Your task to perform on an android device: Open accessibility settings Image 0: 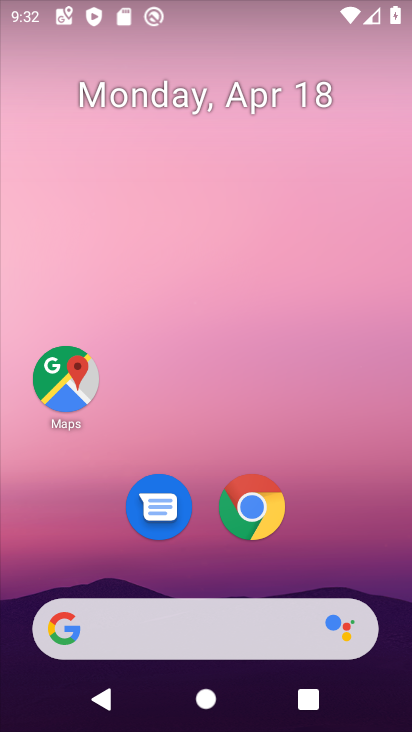
Step 0: drag from (229, 376) to (366, 347)
Your task to perform on an android device: Open accessibility settings Image 1: 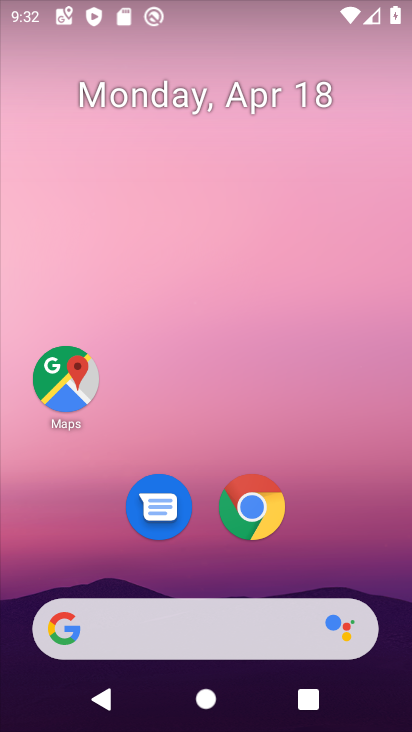
Step 1: drag from (189, 539) to (74, 28)
Your task to perform on an android device: Open accessibility settings Image 2: 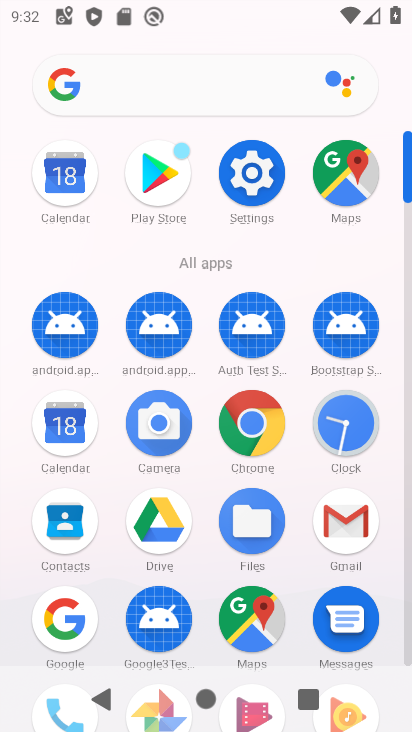
Step 2: click (242, 181)
Your task to perform on an android device: Open accessibility settings Image 3: 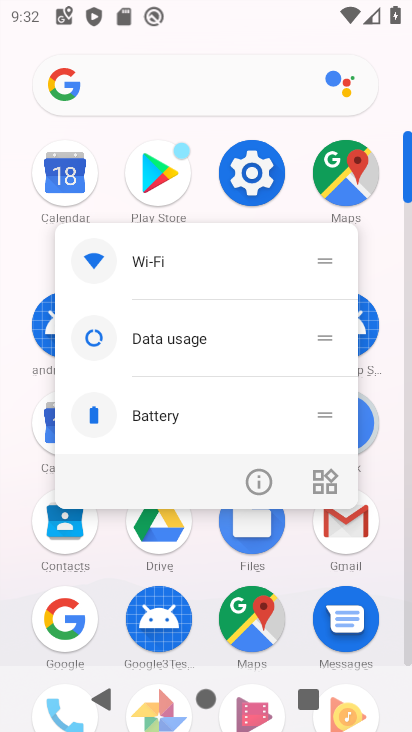
Step 3: click (245, 176)
Your task to perform on an android device: Open accessibility settings Image 4: 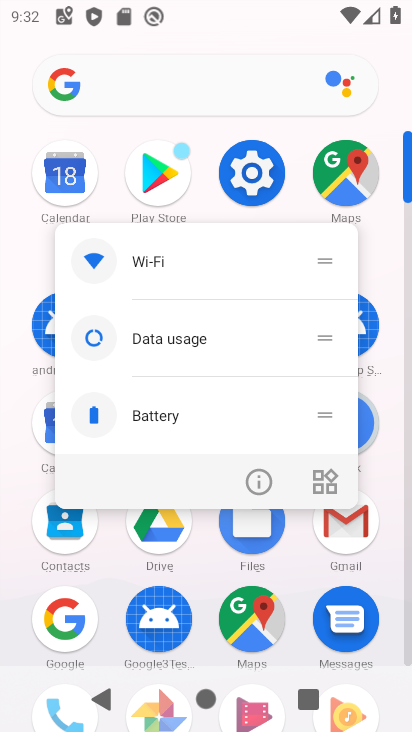
Step 4: click (245, 140)
Your task to perform on an android device: Open accessibility settings Image 5: 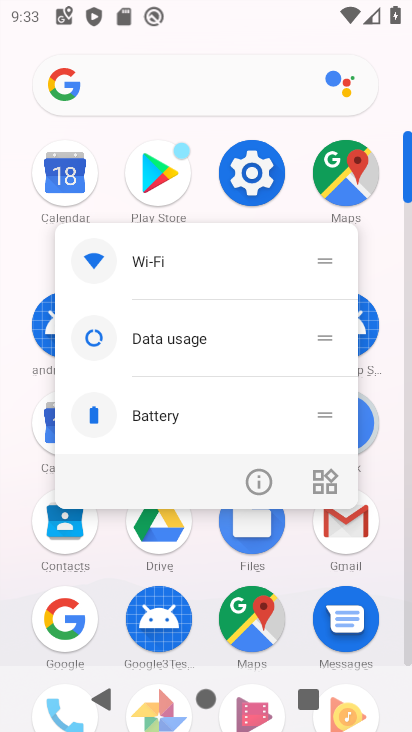
Step 5: click (250, 151)
Your task to perform on an android device: Open accessibility settings Image 6: 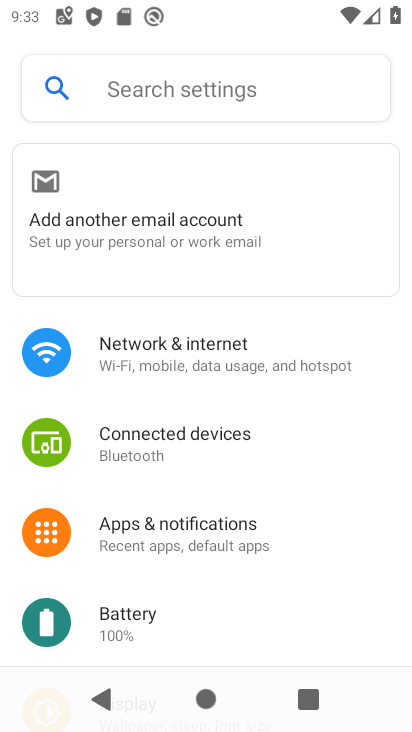
Step 6: drag from (277, 513) to (219, 73)
Your task to perform on an android device: Open accessibility settings Image 7: 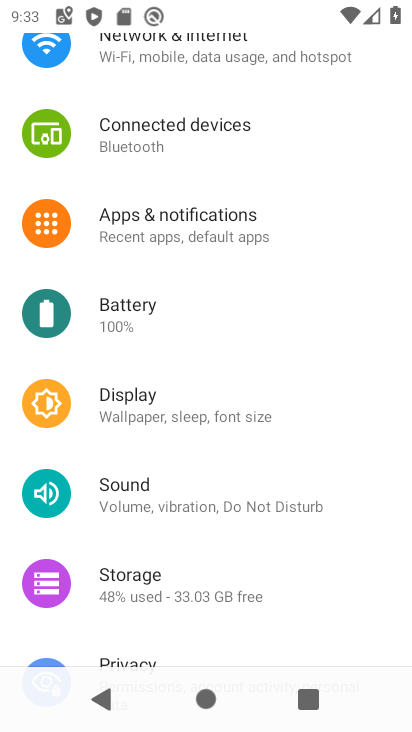
Step 7: drag from (237, 555) to (196, 194)
Your task to perform on an android device: Open accessibility settings Image 8: 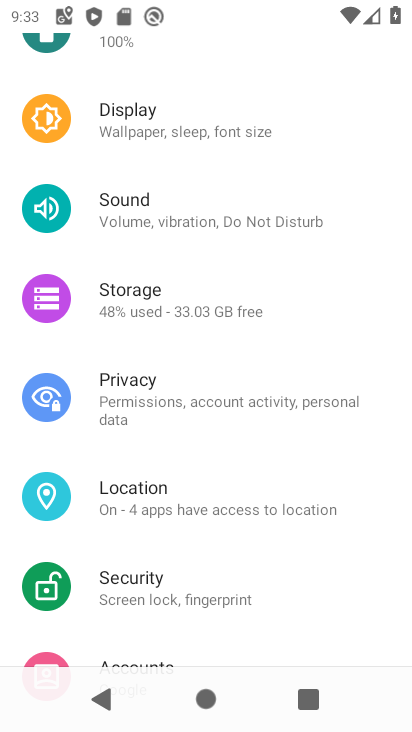
Step 8: drag from (165, 571) to (143, 137)
Your task to perform on an android device: Open accessibility settings Image 9: 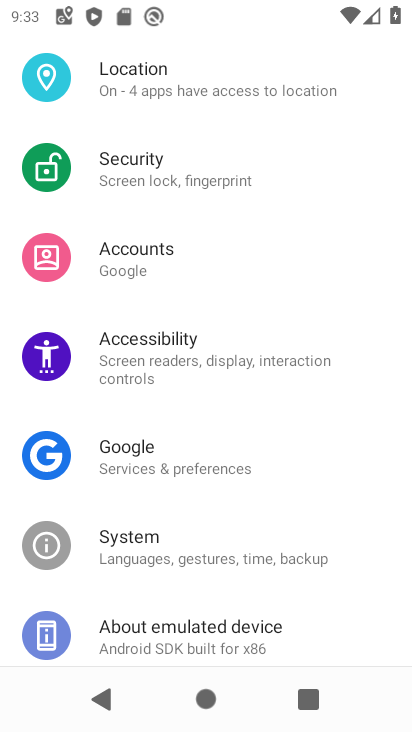
Step 9: click (112, 361)
Your task to perform on an android device: Open accessibility settings Image 10: 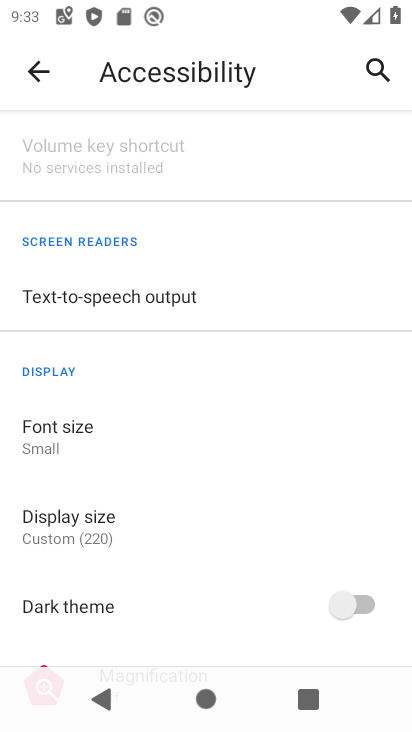
Step 10: task complete